Your task to perform on an android device: empty trash in google photos Image 0: 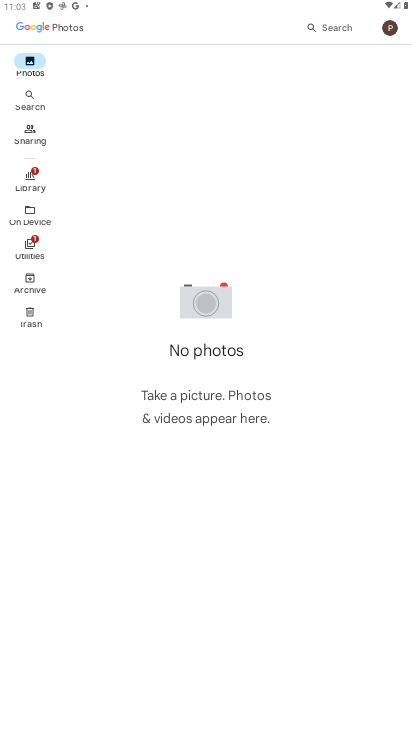
Step 0: click (26, 322)
Your task to perform on an android device: empty trash in google photos Image 1: 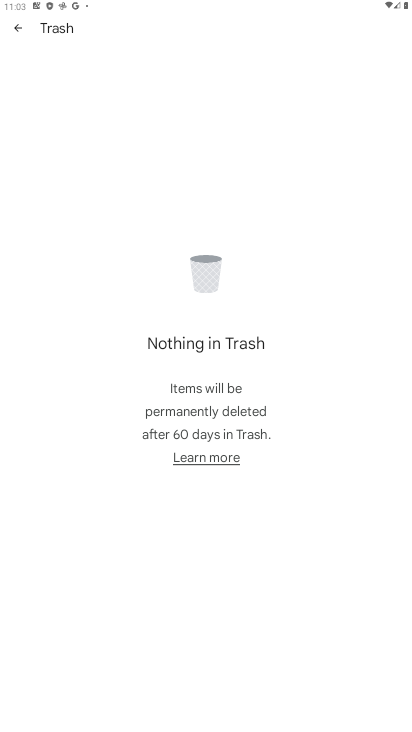
Step 1: task complete